Your task to perform on an android device: move an email to a new category in the gmail app Image 0: 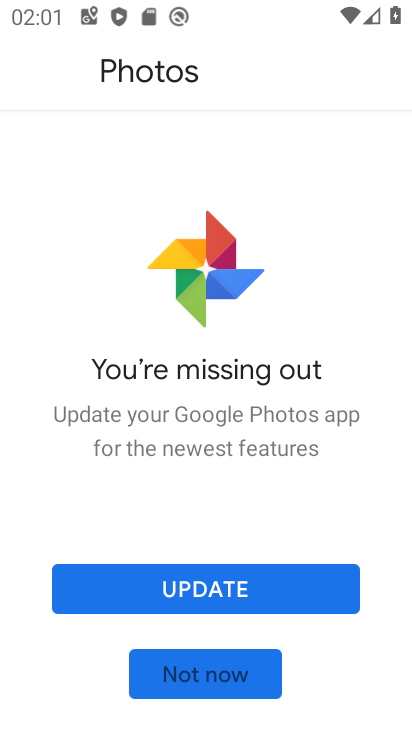
Step 0: press home button
Your task to perform on an android device: move an email to a new category in the gmail app Image 1: 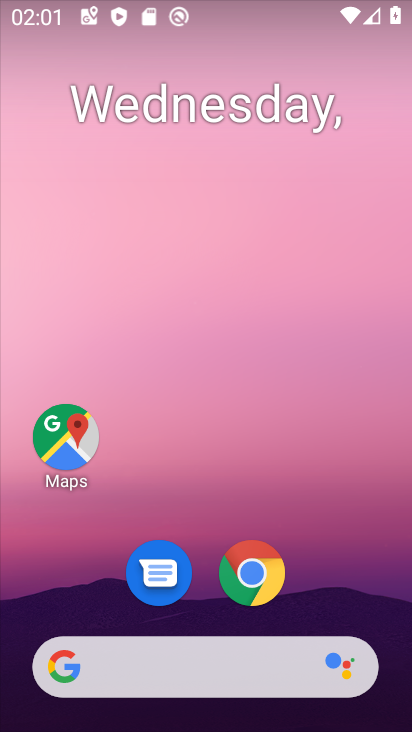
Step 1: drag from (199, 529) to (140, 84)
Your task to perform on an android device: move an email to a new category in the gmail app Image 2: 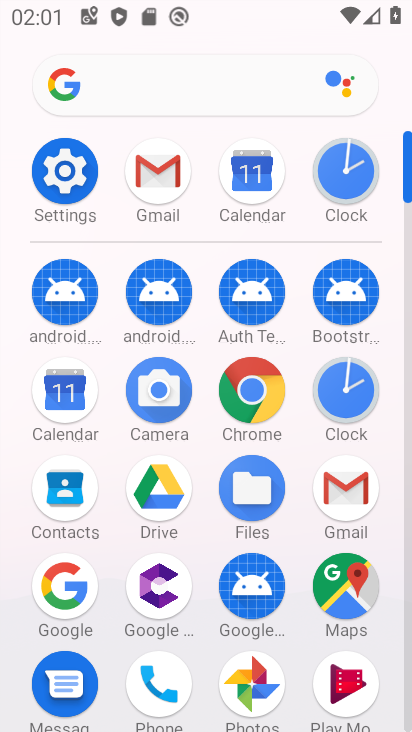
Step 2: click (159, 173)
Your task to perform on an android device: move an email to a new category in the gmail app Image 3: 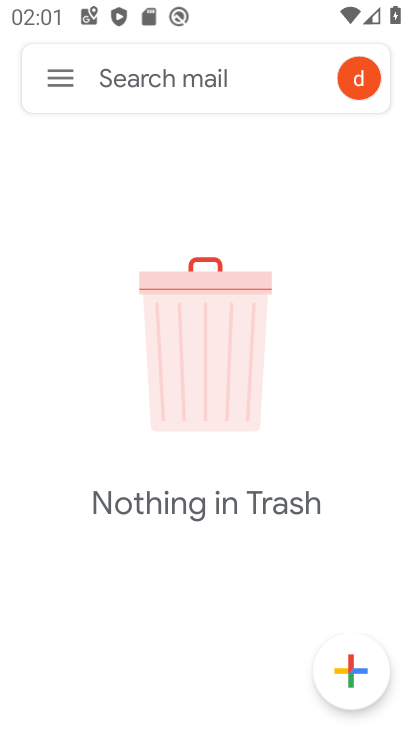
Step 3: click (56, 82)
Your task to perform on an android device: move an email to a new category in the gmail app Image 4: 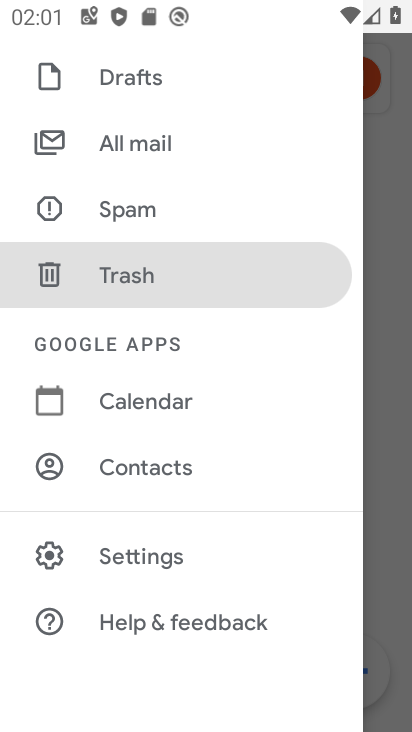
Step 4: click (139, 140)
Your task to perform on an android device: move an email to a new category in the gmail app Image 5: 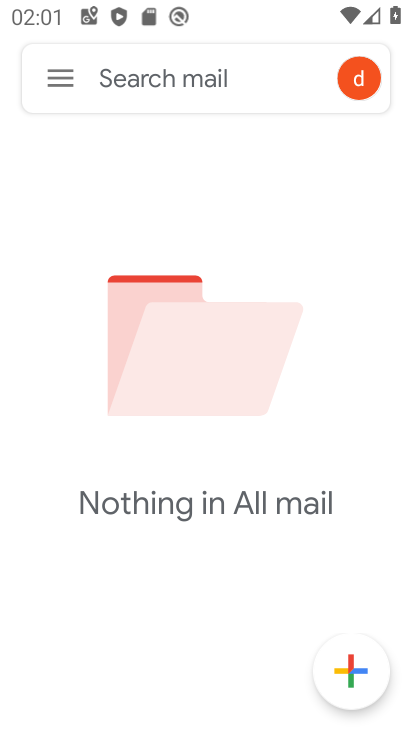
Step 5: click (59, 72)
Your task to perform on an android device: move an email to a new category in the gmail app Image 6: 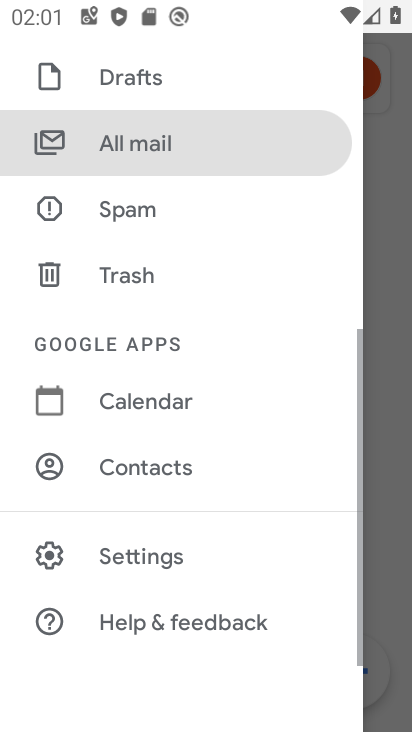
Step 6: drag from (151, 194) to (198, 335)
Your task to perform on an android device: move an email to a new category in the gmail app Image 7: 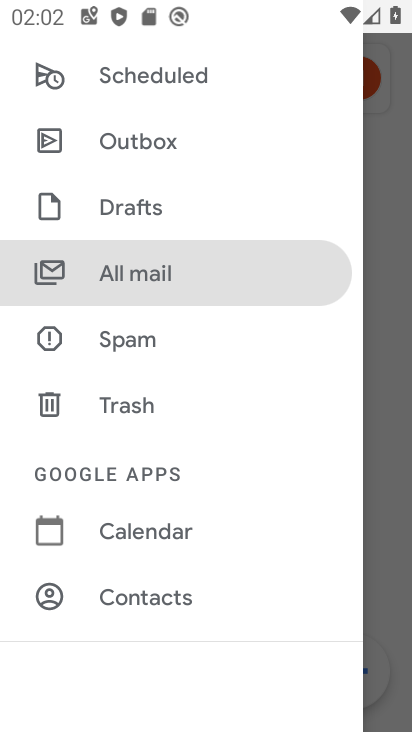
Step 7: drag from (152, 178) to (210, 345)
Your task to perform on an android device: move an email to a new category in the gmail app Image 8: 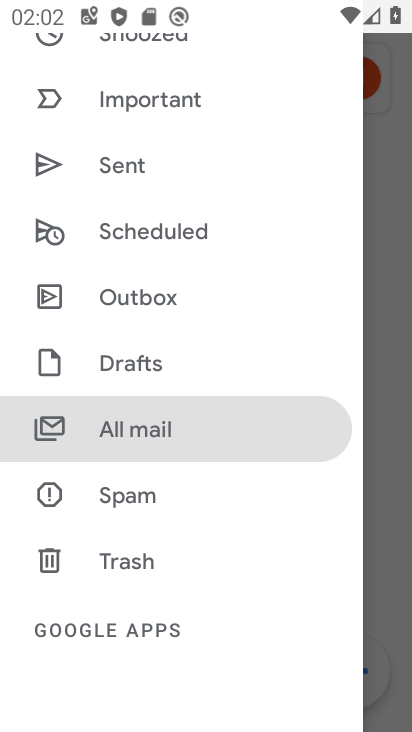
Step 8: drag from (161, 166) to (220, 352)
Your task to perform on an android device: move an email to a new category in the gmail app Image 9: 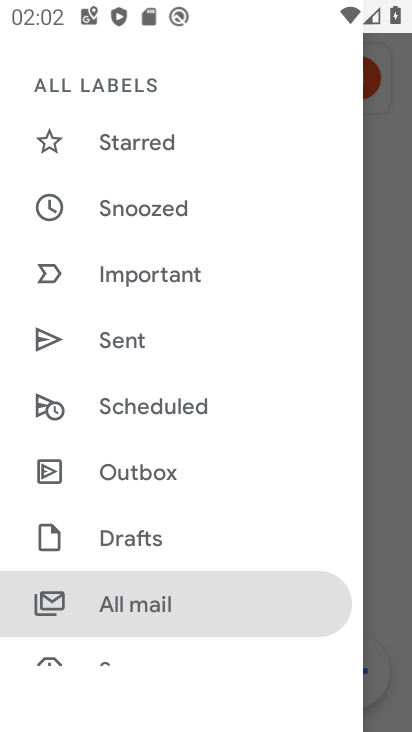
Step 9: drag from (164, 193) to (213, 434)
Your task to perform on an android device: move an email to a new category in the gmail app Image 10: 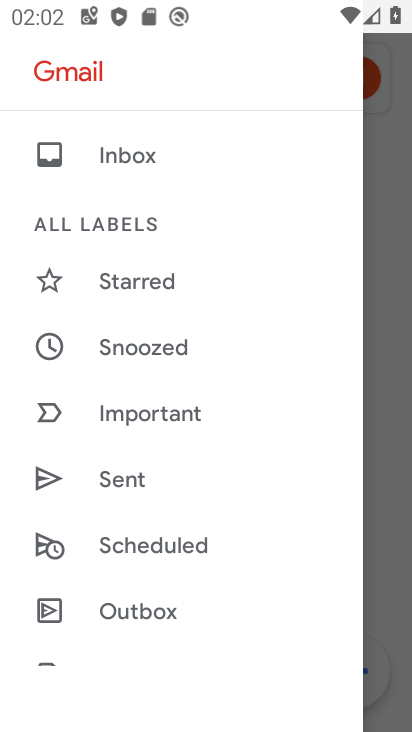
Step 10: drag from (121, 231) to (172, 294)
Your task to perform on an android device: move an email to a new category in the gmail app Image 11: 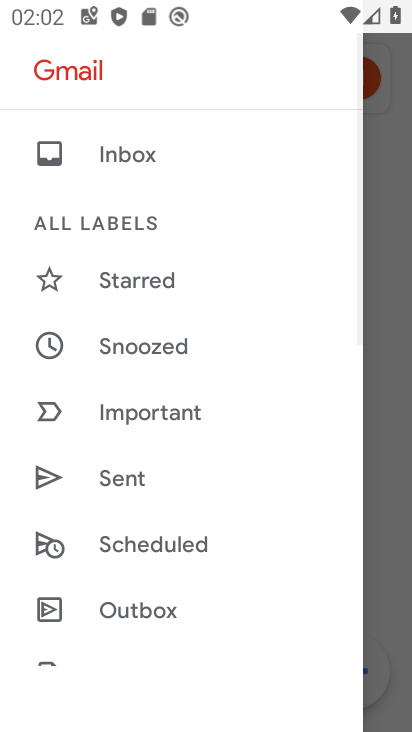
Step 11: click (130, 149)
Your task to perform on an android device: move an email to a new category in the gmail app Image 12: 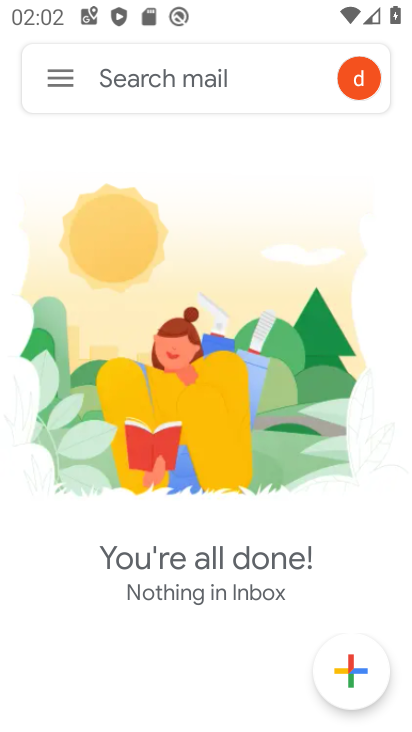
Step 12: task complete